Your task to perform on an android device: open app "Microsoft Outlook" Image 0: 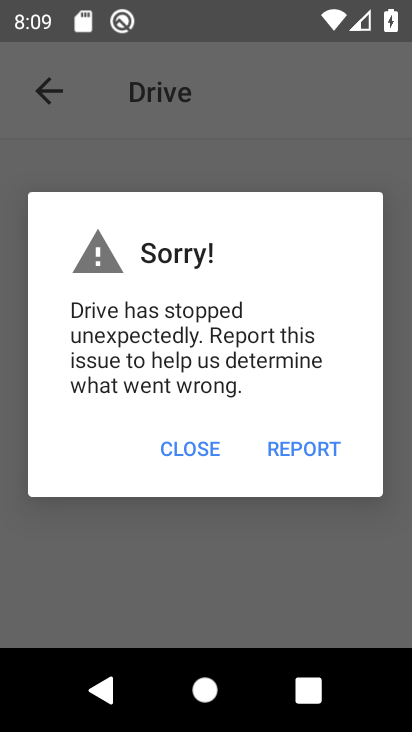
Step 0: press back button
Your task to perform on an android device: open app "Microsoft Outlook" Image 1: 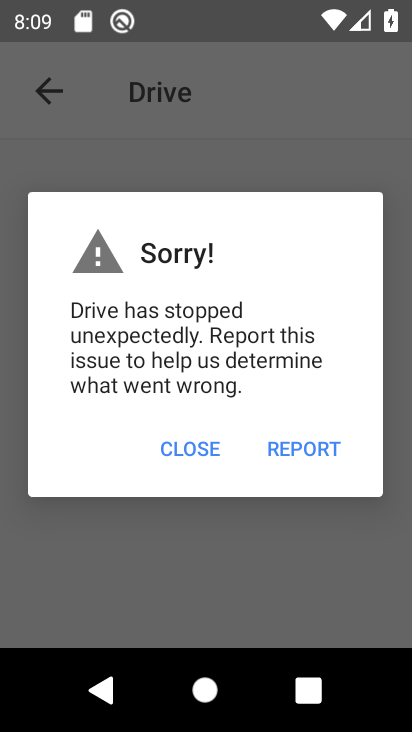
Step 1: press home button
Your task to perform on an android device: open app "Microsoft Outlook" Image 2: 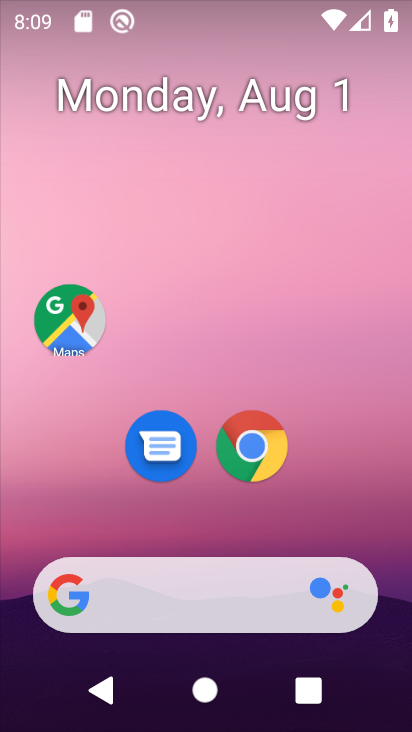
Step 2: drag from (200, 529) to (190, 113)
Your task to perform on an android device: open app "Microsoft Outlook" Image 3: 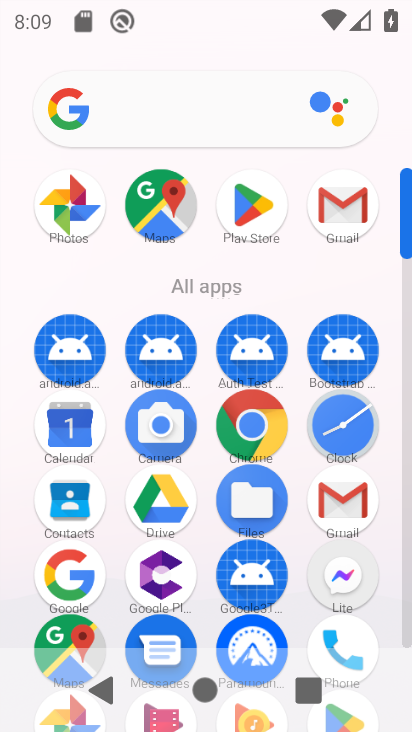
Step 3: click (230, 192)
Your task to perform on an android device: open app "Microsoft Outlook" Image 4: 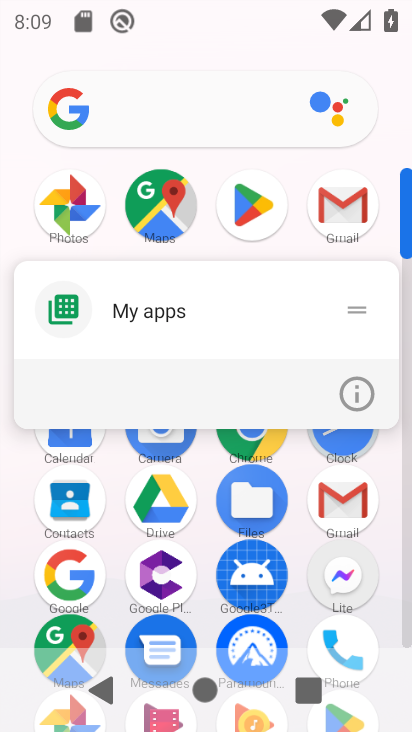
Step 4: click (240, 224)
Your task to perform on an android device: open app "Microsoft Outlook" Image 5: 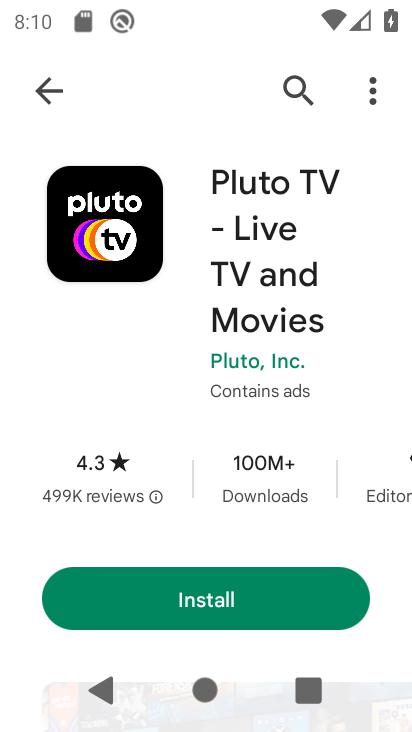
Step 5: click (299, 88)
Your task to perform on an android device: open app "Microsoft Outlook" Image 6: 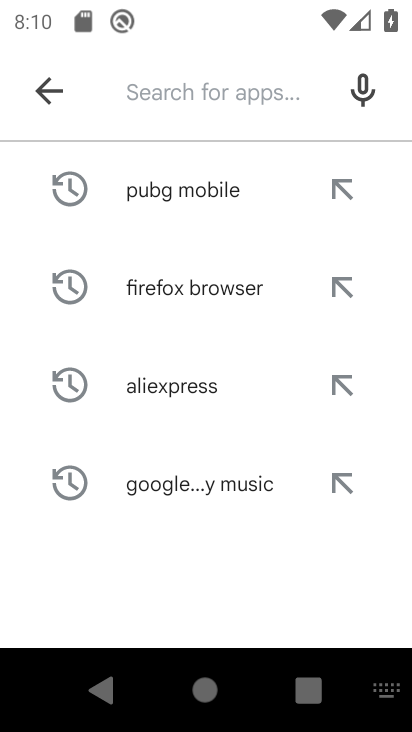
Step 6: type "Microsoft Outlook"
Your task to perform on an android device: open app "Microsoft Outlook" Image 7: 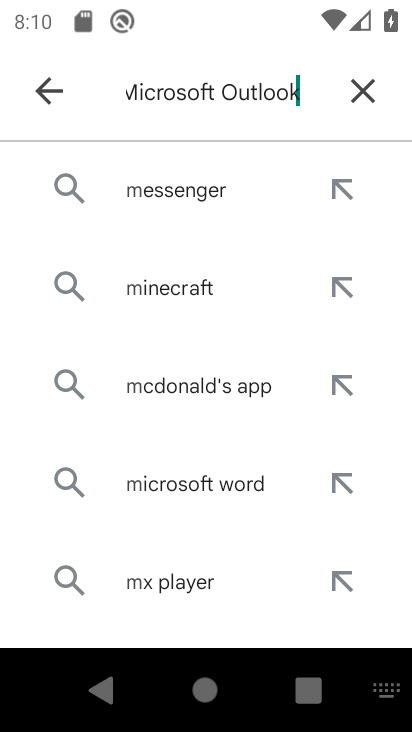
Step 7: type ""
Your task to perform on an android device: open app "Microsoft Outlook" Image 8: 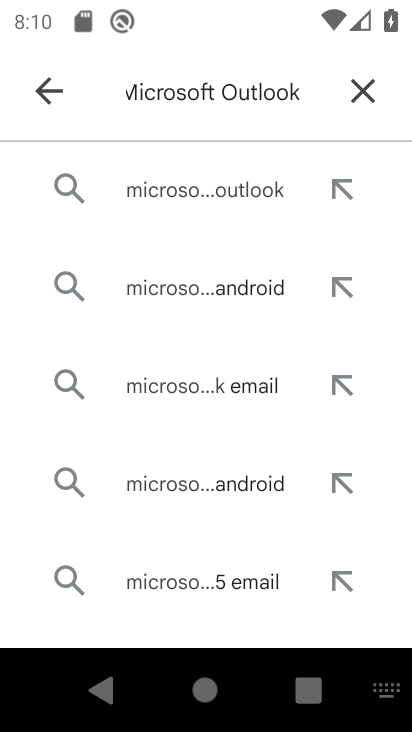
Step 8: click (197, 183)
Your task to perform on an android device: open app "Microsoft Outlook" Image 9: 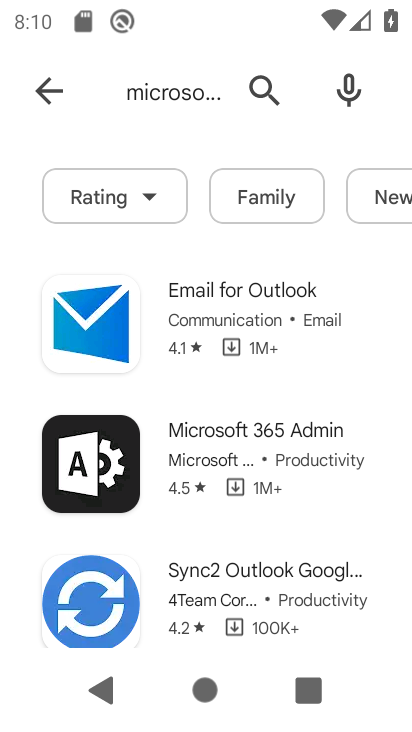
Step 9: click (306, 318)
Your task to perform on an android device: open app "Microsoft Outlook" Image 10: 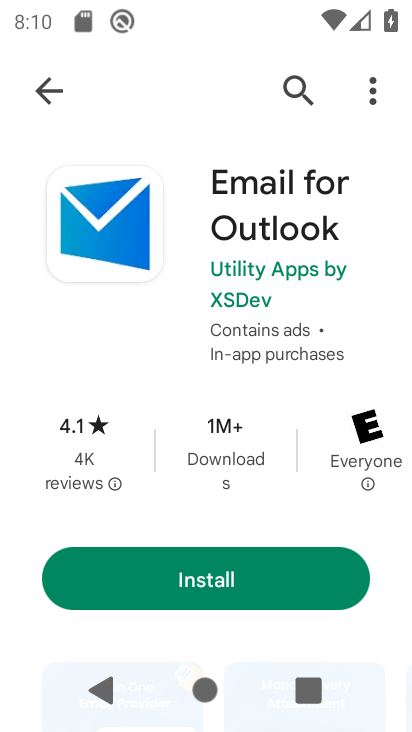
Step 10: task complete